Your task to perform on an android device: Search for vegetarian restaurants on Maps Image 0: 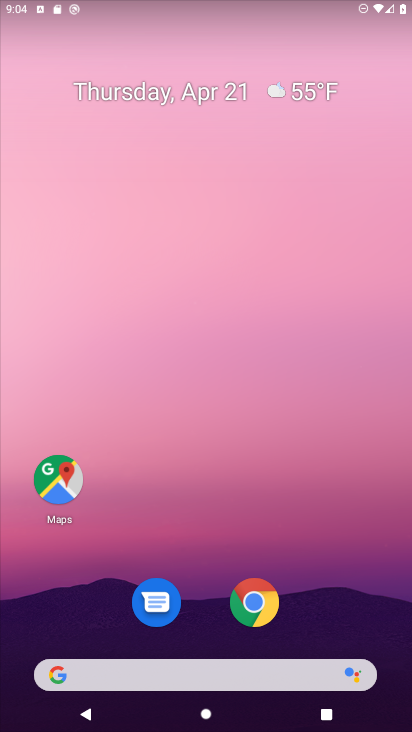
Step 0: click (51, 494)
Your task to perform on an android device: Search for vegetarian restaurants on Maps Image 1: 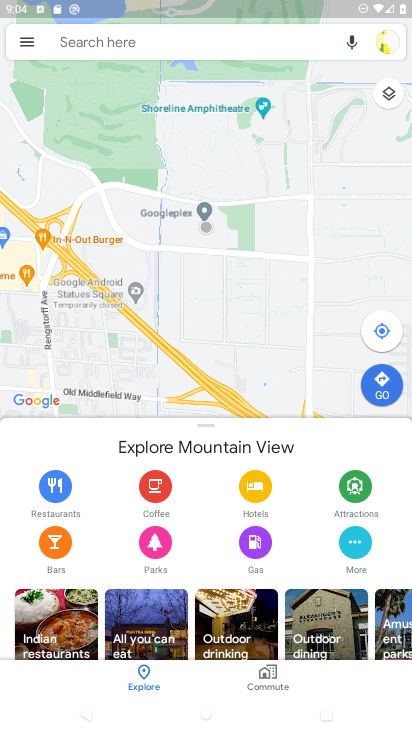
Step 1: click (137, 50)
Your task to perform on an android device: Search for vegetarian restaurants on Maps Image 2: 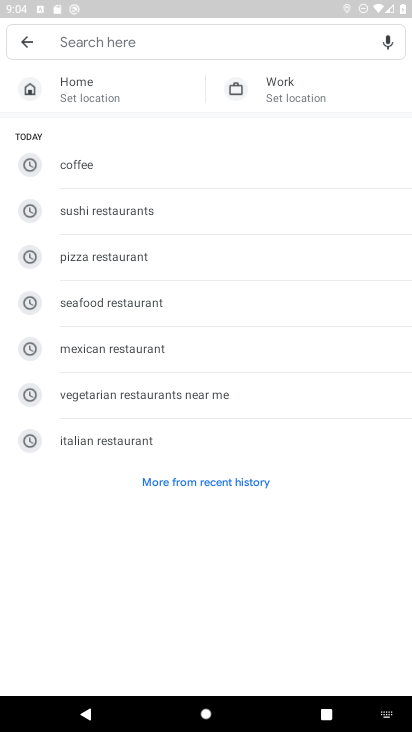
Step 2: click (106, 402)
Your task to perform on an android device: Search for vegetarian restaurants on Maps Image 3: 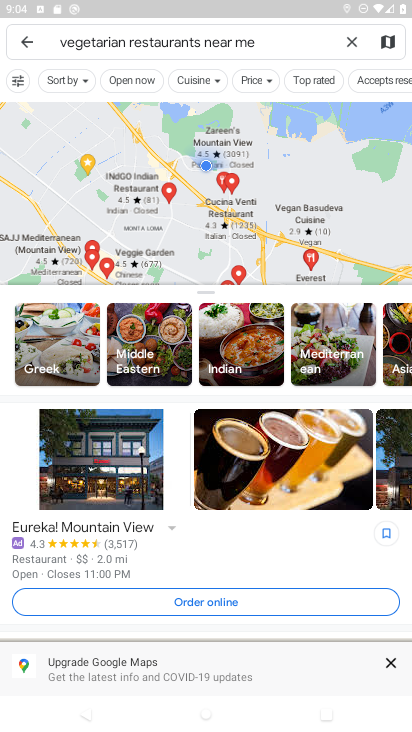
Step 3: task complete